Your task to perform on an android device: open a bookmark in the chrome app Image 0: 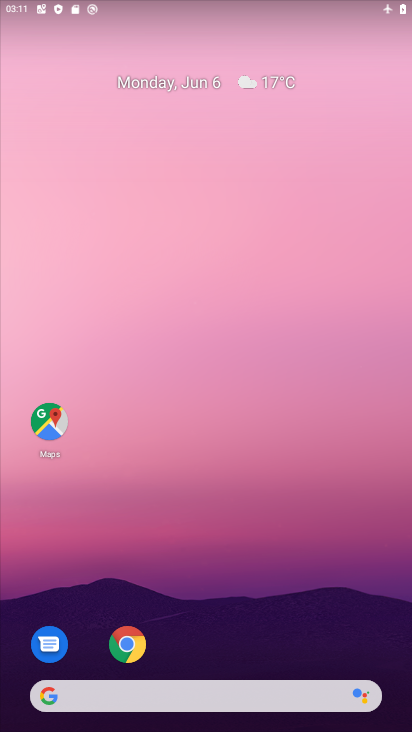
Step 0: click (123, 636)
Your task to perform on an android device: open a bookmark in the chrome app Image 1: 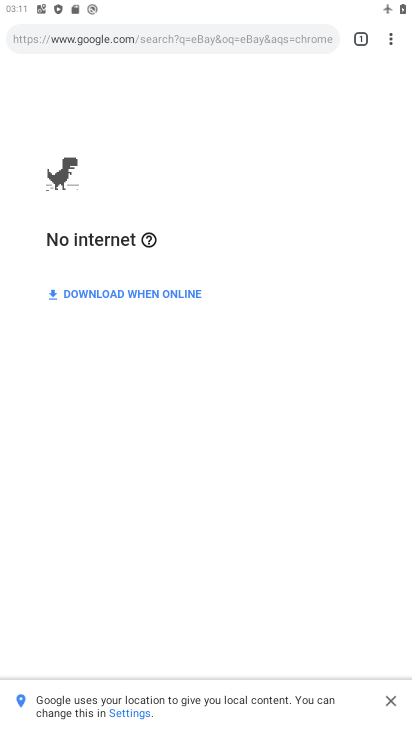
Step 1: click (389, 33)
Your task to perform on an android device: open a bookmark in the chrome app Image 2: 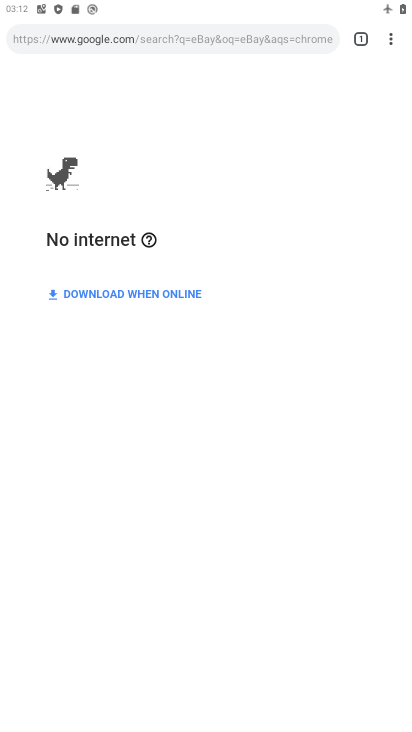
Step 2: click (387, 36)
Your task to perform on an android device: open a bookmark in the chrome app Image 3: 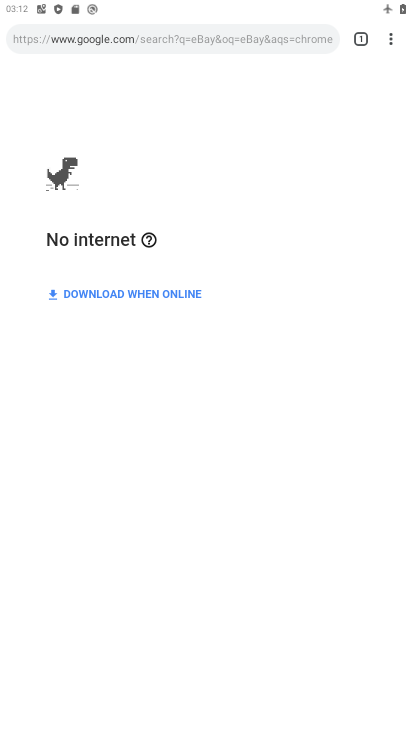
Step 3: task complete